Your task to perform on an android device: What is the speed of sound? Image 0: 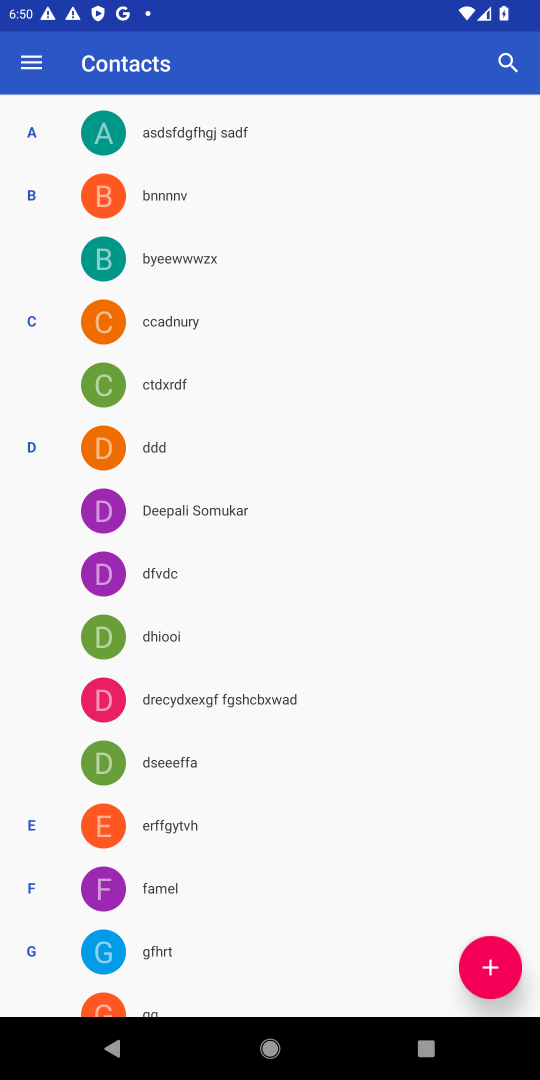
Step 0: press home button
Your task to perform on an android device: What is the speed of sound? Image 1: 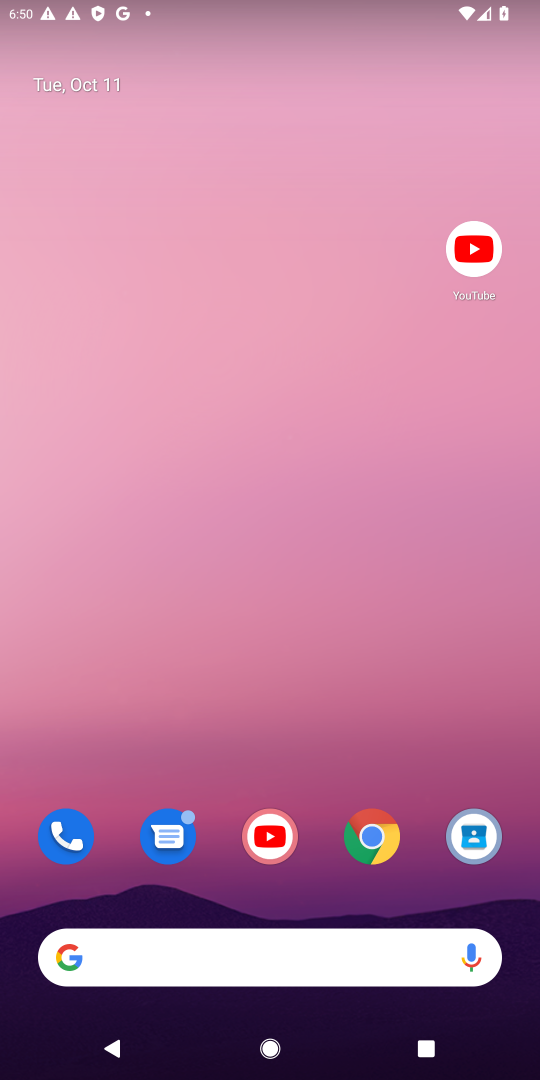
Step 1: click (372, 832)
Your task to perform on an android device: What is the speed of sound? Image 2: 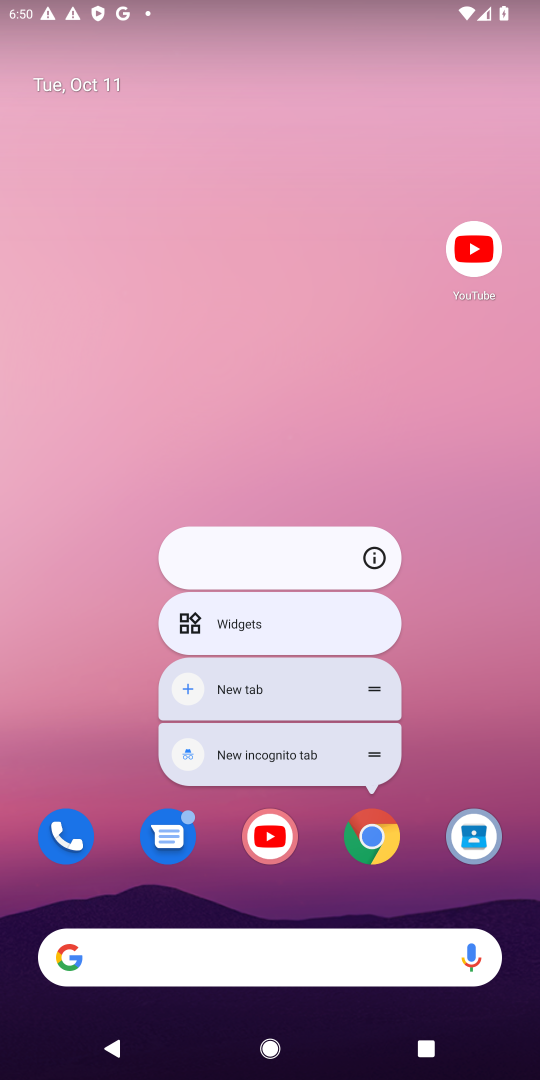
Step 2: click (372, 832)
Your task to perform on an android device: What is the speed of sound? Image 3: 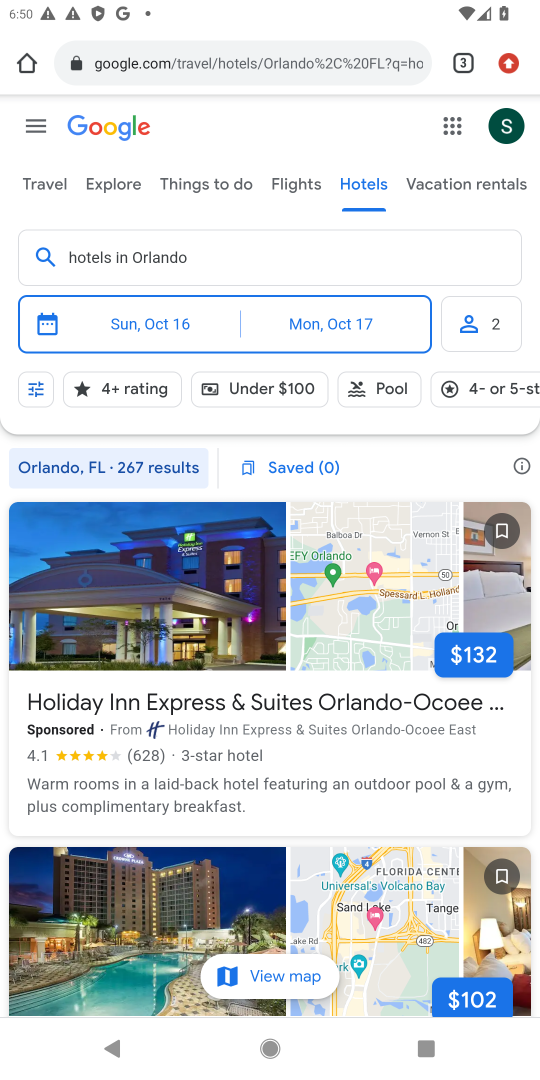
Step 3: click (268, 64)
Your task to perform on an android device: What is the speed of sound? Image 4: 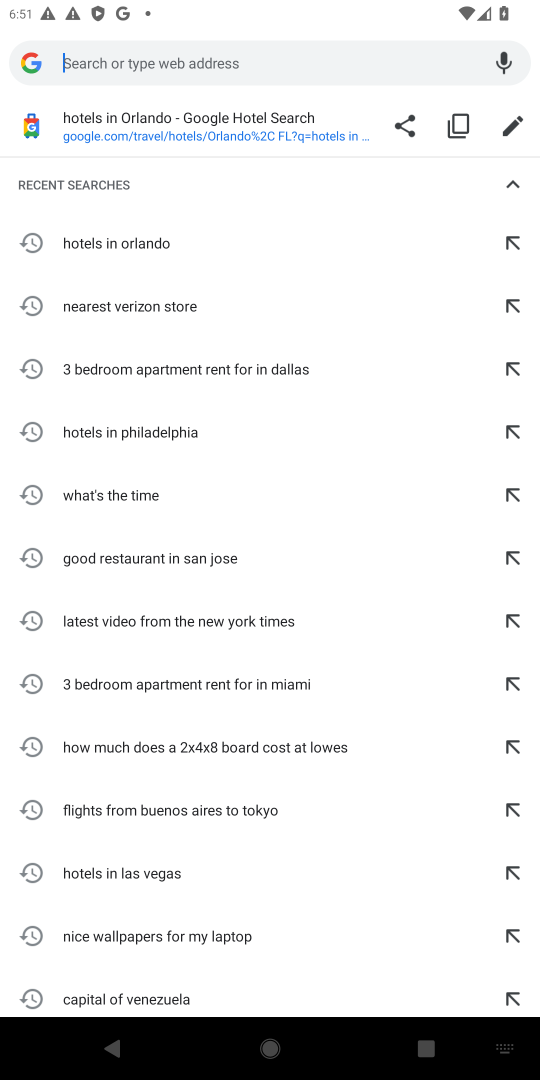
Step 4: type "speed of sound"
Your task to perform on an android device: What is the speed of sound? Image 5: 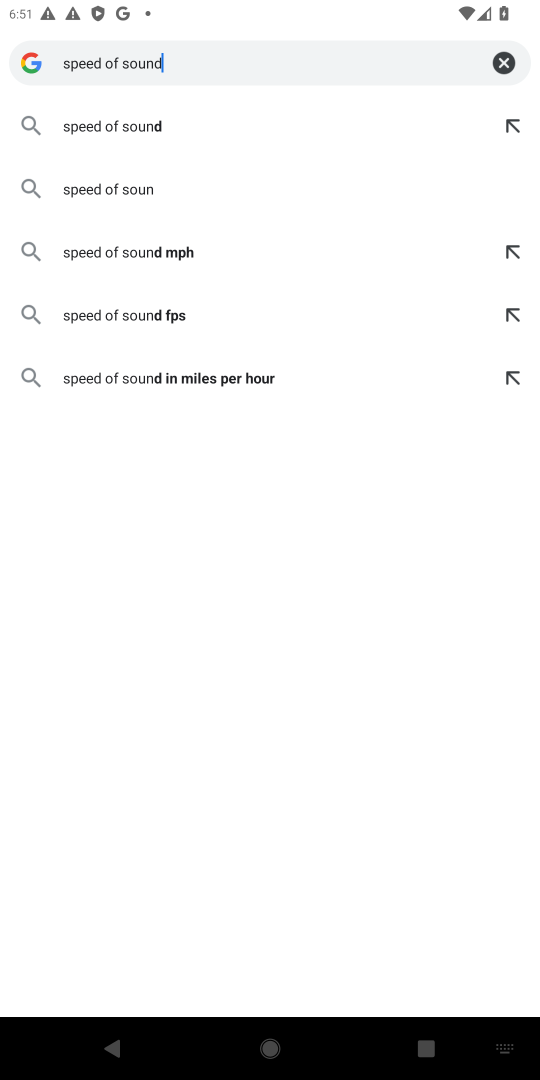
Step 5: press enter
Your task to perform on an android device: What is the speed of sound? Image 6: 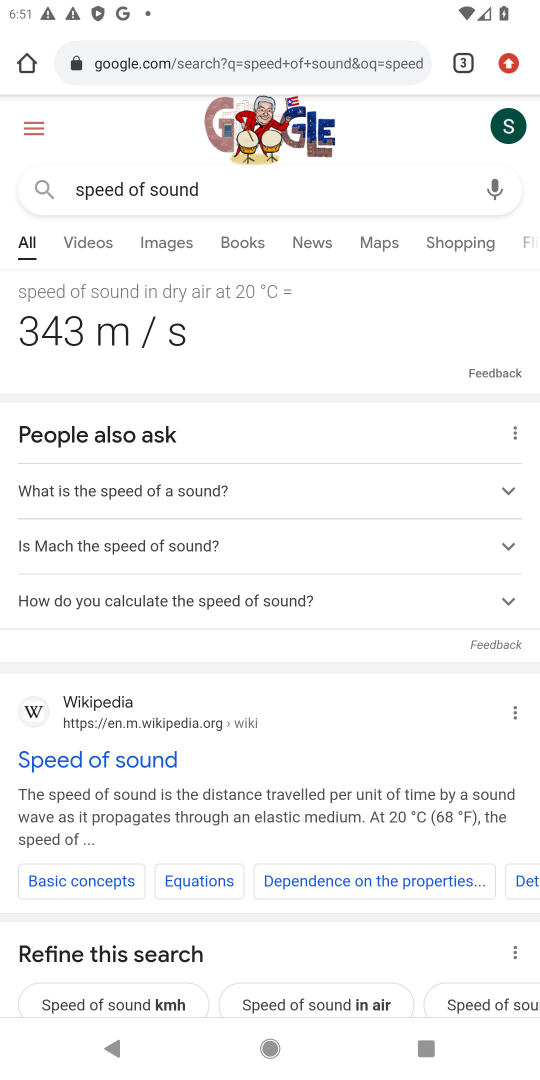
Step 6: task complete